Your task to perform on an android device: open app "Gmail" (install if not already installed), go to login, and select forgot password Image 0: 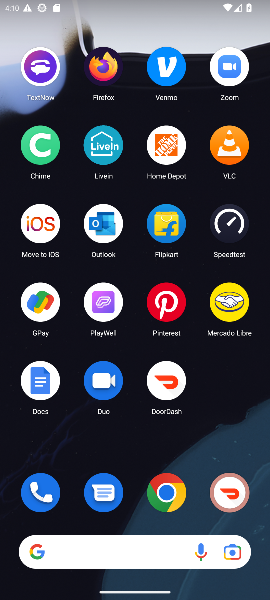
Step 0: drag from (133, 454) to (153, 74)
Your task to perform on an android device: open app "Gmail" (install if not already installed), go to login, and select forgot password Image 1: 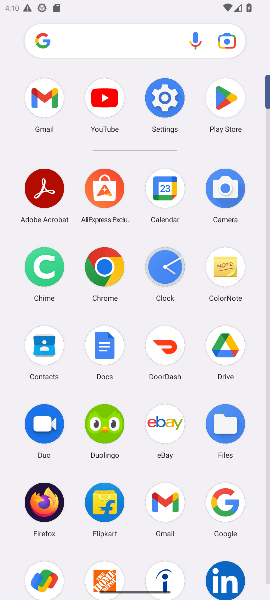
Step 1: click (30, 99)
Your task to perform on an android device: open app "Gmail" (install if not already installed), go to login, and select forgot password Image 2: 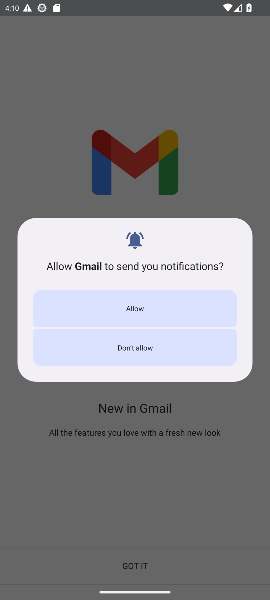
Step 2: click (163, 288)
Your task to perform on an android device: open app "Gmail" (install if not already installed), go to login, and select forgot password Image 3: 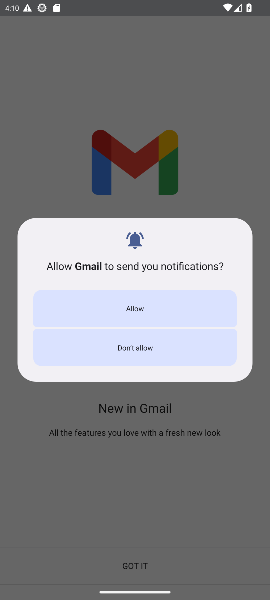
Step 3: click (178, 295)
Your task to perform on an android device: open app "Gmail" (install if not already installed), go to login, and select forgot password Image 4: 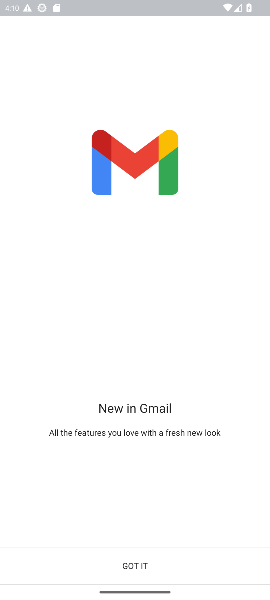
Step 4: click (154, 560)
Your task to perform on an android device: open app "Gmail" (install if not already installed), go to login, and select forgot password Image 5: 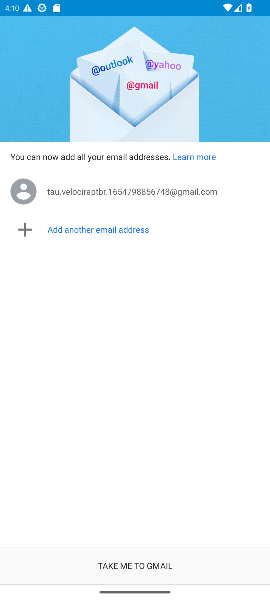
Step 5: click (149, 572)
Your task to perform on an android device: open app "Gmail" (install if not already installed), go to login, and select forgot password Image 6: 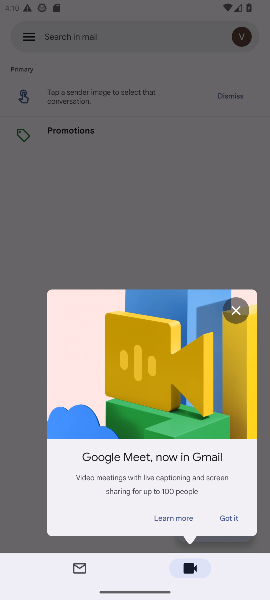
Step 6: click (223, 521)
Your task to perform on an android device: open app "Gmail" (install if not already installed), go to login, and select forgot password Image 7: 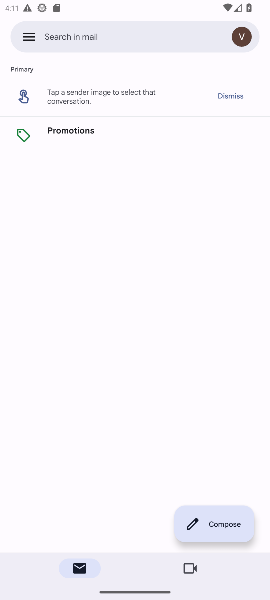
Step 7: task complete